Your task to perform on an android device: Search for Italian restaurants on Maps Image 0: 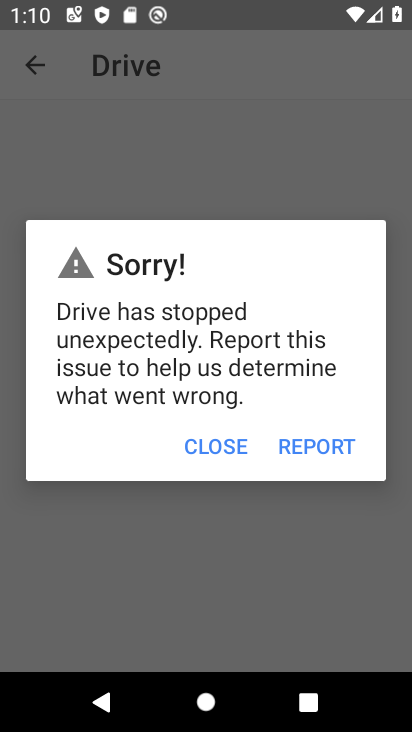
Step 0: press home button
Your task to perform on an android device: Search for Italian restaurants on Maps Image 1: 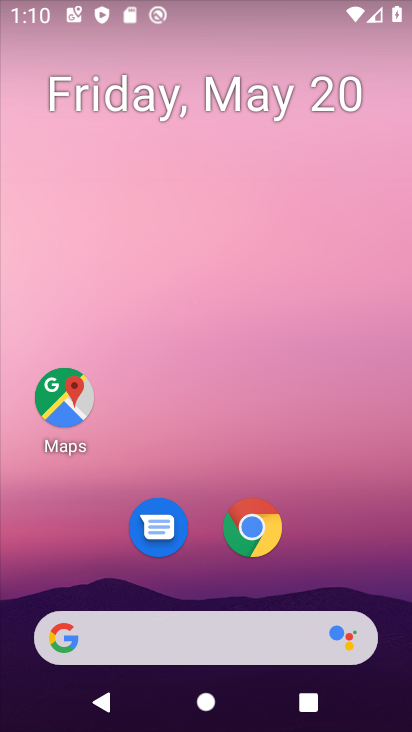
Step 1: click (44, 389)
Your task to perform on an android device: Search for Italian restaurants on Maps Image 2: 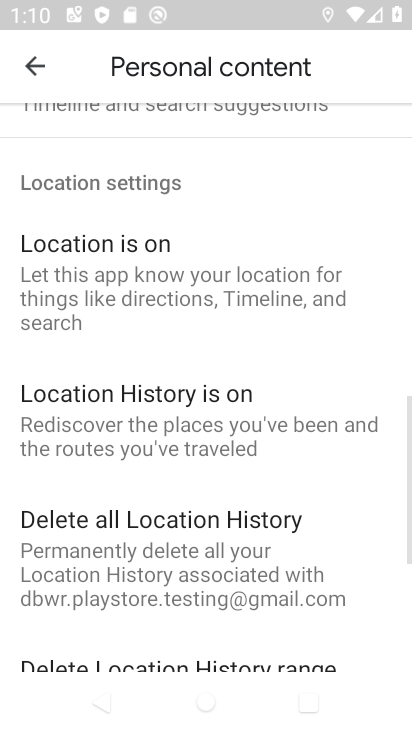
Step 2: click (38, 65)
Your task to perform on an android device: Search for Italian restaurants on Maps Image 3: 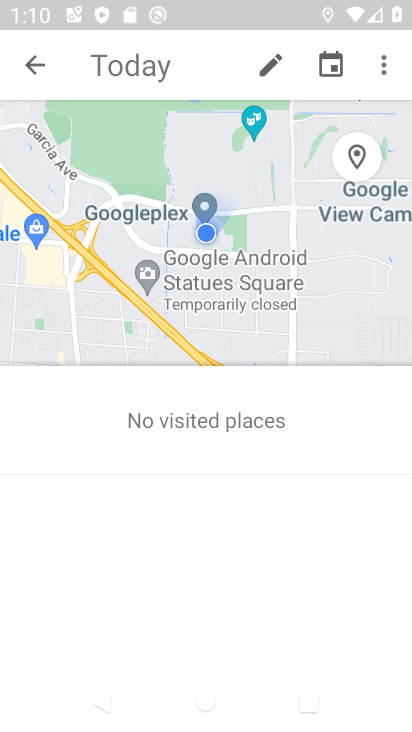
Step 3: click (38, 65)
Your task to perform on an android device: Search for Italian restaurants on Maps Image 4: 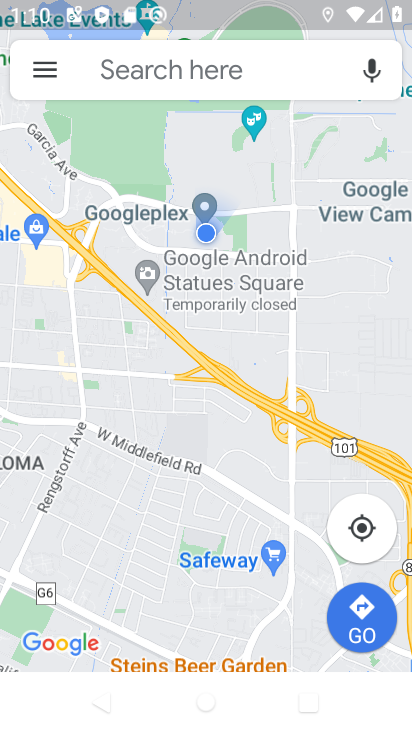
Step 4: click (185, 74)
Your task to perform on an android device: Search for Italian restaurants on Maps Image 5: 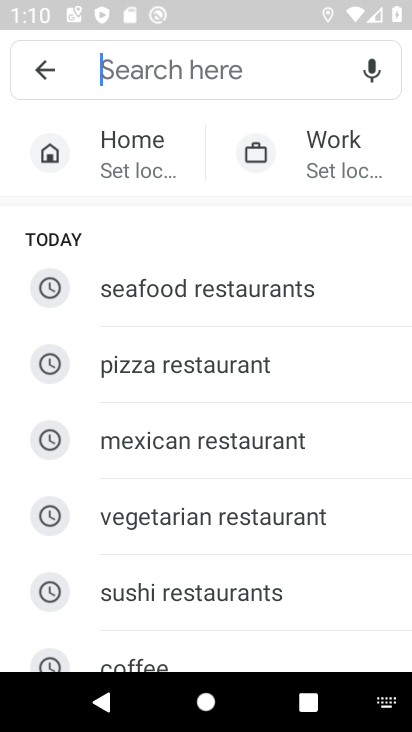
Step 5: drag from (296, 564) to (305, 315)
Your task to perform on an android device: Search for Italian restaurants on Maps Image 6: 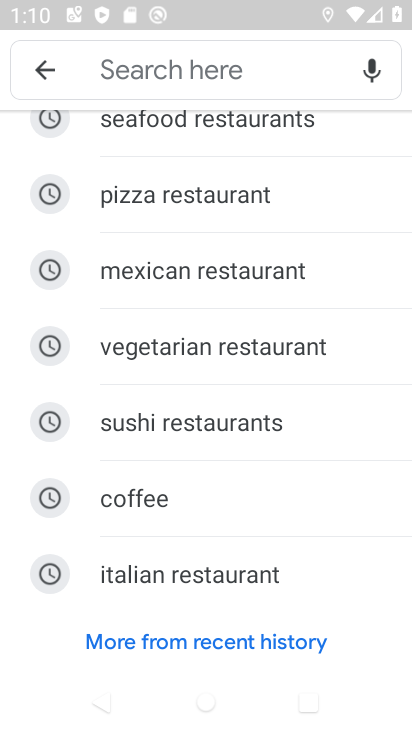
Step 6: click (164, 572)
Your task to perform on an android device: Search for Italian restaurants on Maps Image 7: 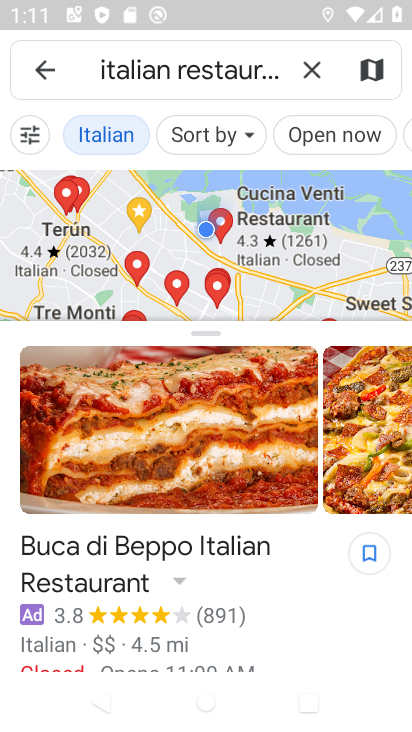
Step 7: task complete